Your task to perform on an android device: turn on notifications settings in the gmail app Image 0: 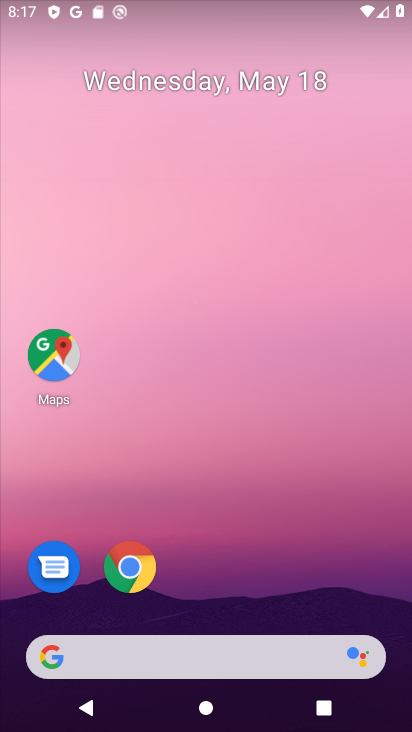
Step 0: drag from (254, 546) to (277, 32)
Your task to perform on an android device: turn on notifications settings in the gmail app Image 1: 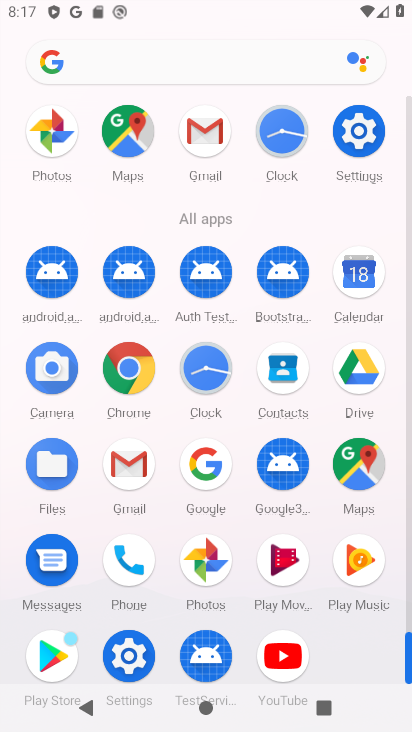
Step 1: drag from (13, 555) to (2, 198)
Your task to perform on an android device: turn on notifications settings in the gmail app Image 2: 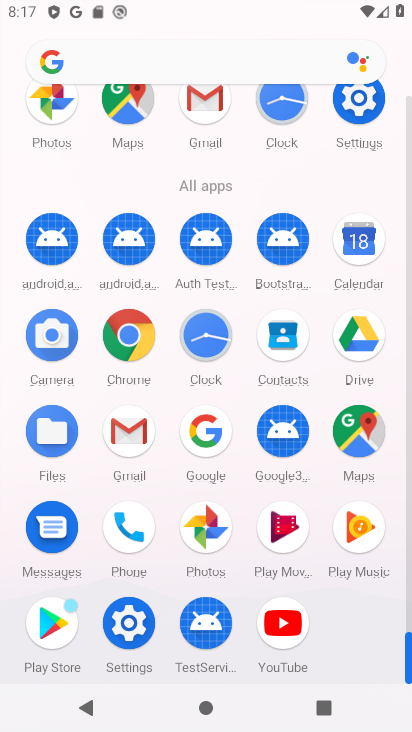
Step 2: click (128, 420)
Your task to perform on an android device: turn on notifications settings in the gmail app Image 3: 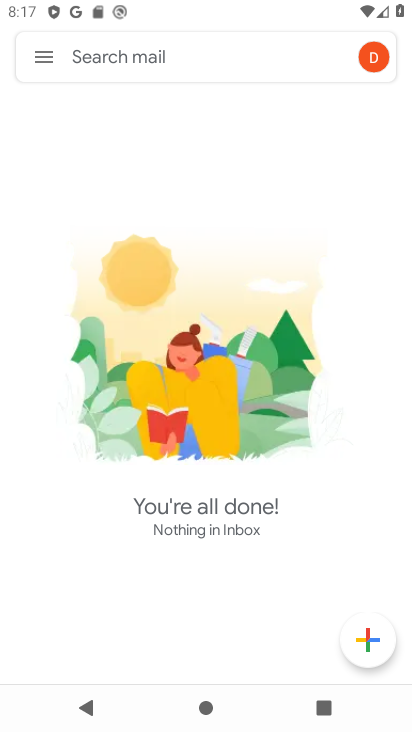
Step 3: click (41, 63)
Your task to perform on an android device: turn on notifications settings in the gmail app Image 4: 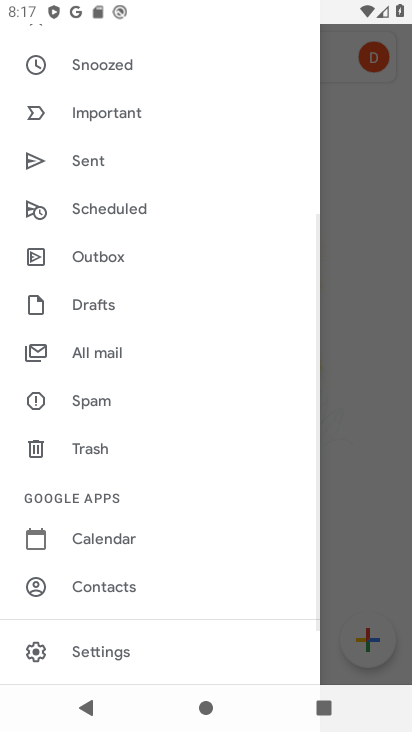
Step 4: click (123, 647)
Your task to perform on an android device: turn on notifications settings in the gmail app Image 5: 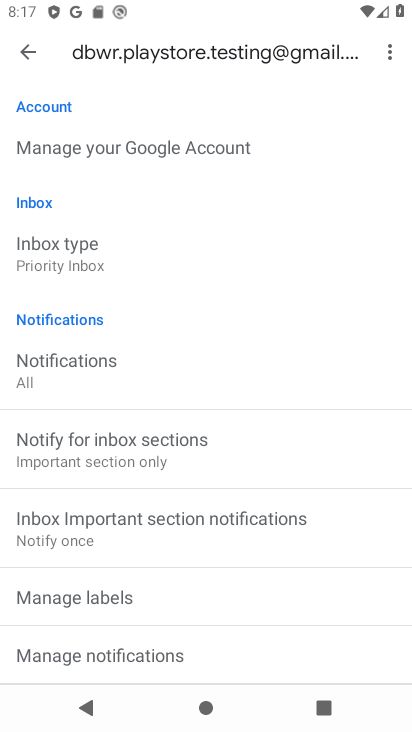
Step 5: drag from (243, 551) to (251, 322)
Your task to perform on an android device: turn on notifications settings in the gmail app Image 6: 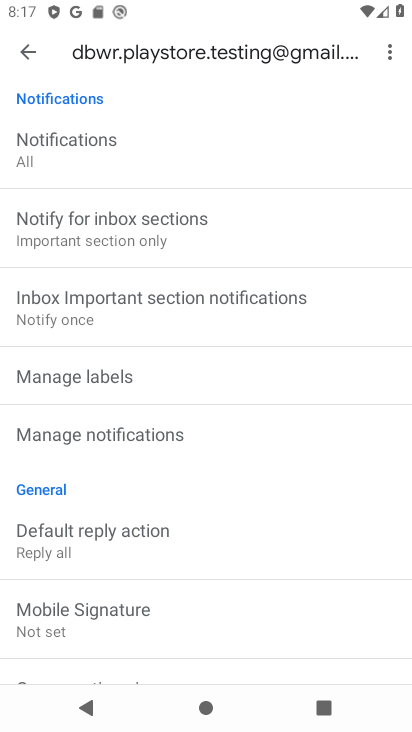
Step 6: click (141, 433)
Your task to perform on an android device: turn on notifications settings in the gmail app Image 7: 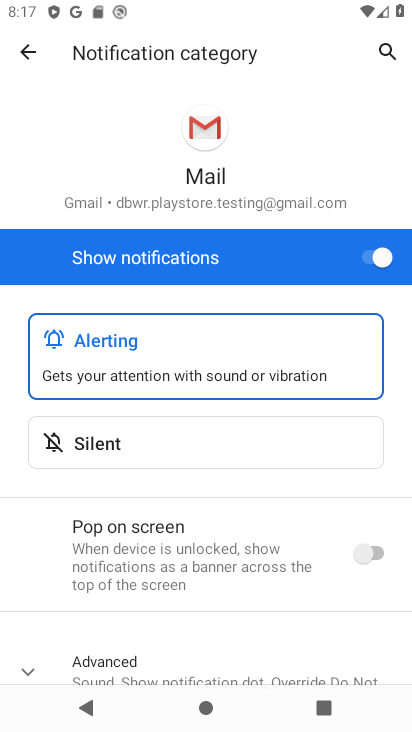
Step 7: drag from (166, 607) to (221, 209)
Your task to perform on an android device: turn on notifications settings in the gmail app Image 8: 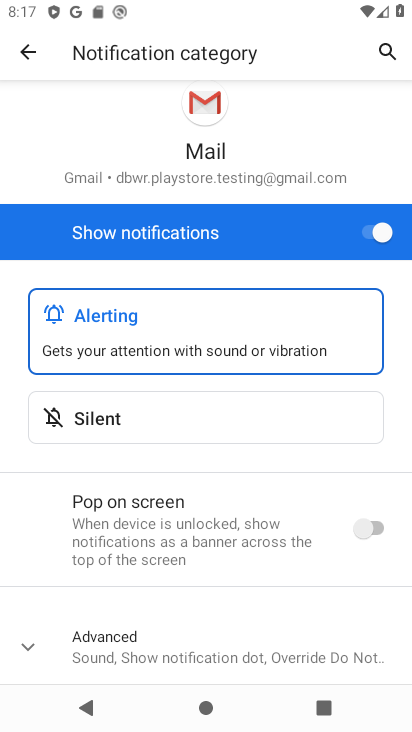
Step 8: click (159, 662)
Your task to perform on an android device: turn on notifications settings in the gmail app Image 9: 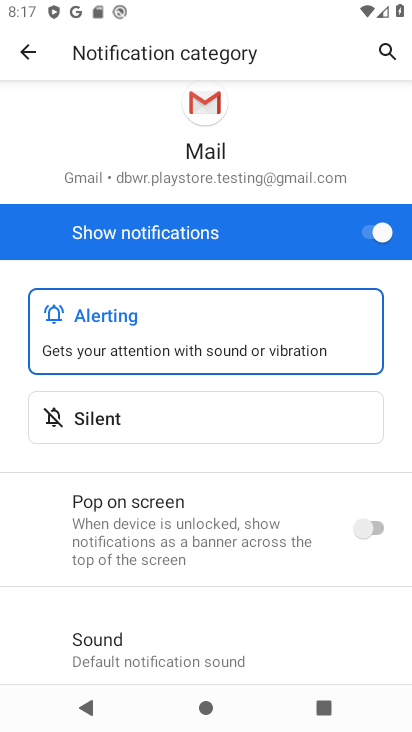
Step 9: click (21, 55)
Your task to perform on an android device: turn on notifications settings in the gmail app Image 10: 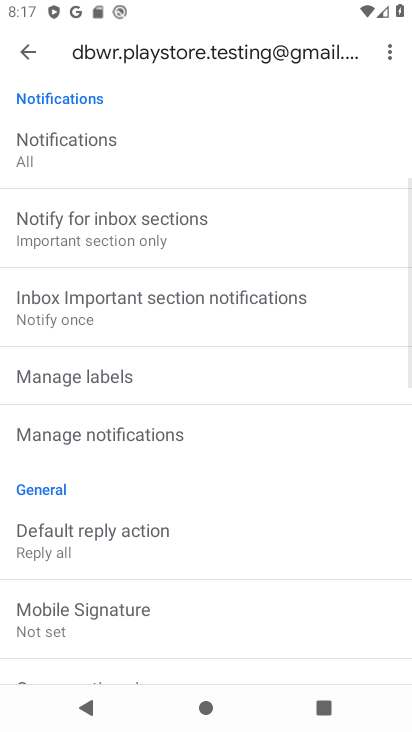
Step 10: click (148, 431)
Your task to perform on an android device: turn on notifications settings in the gmail app Image 11: 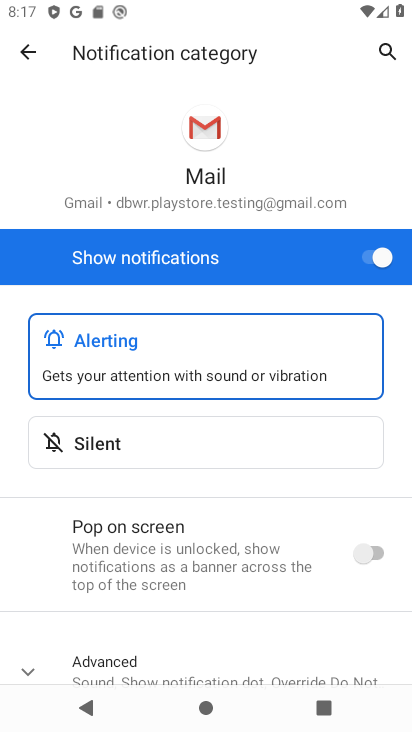
Step 11: task complete